Your task to perform on an android device: search for starred emails in the gmail app Image 0: 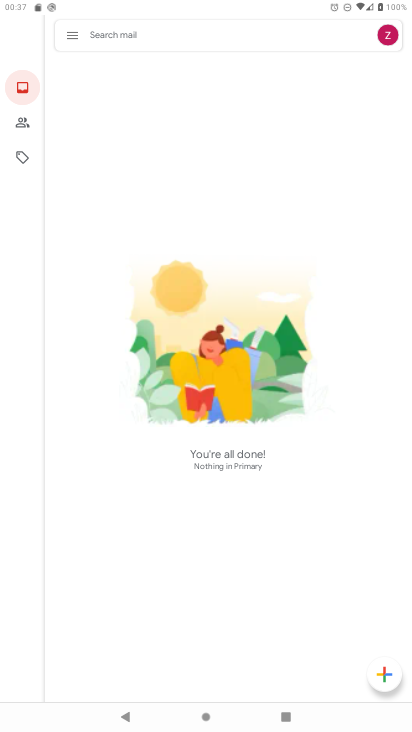
Step 0: drag from (160, 555) to (193, 222)
Your task to perform on an android device: search for starred emails in the gmail app Image 1: 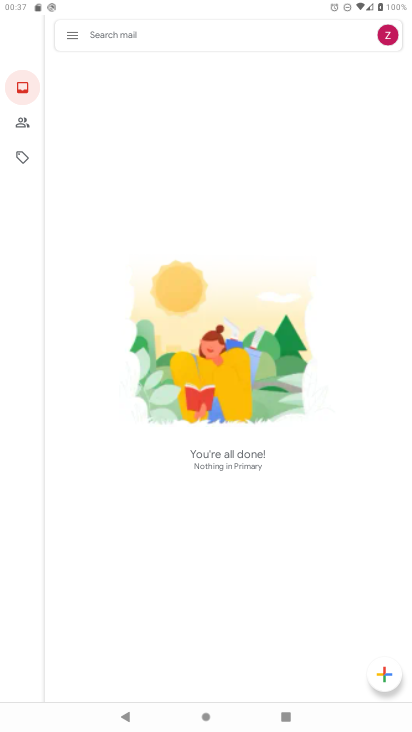
Step 1: click (218, 432)
Your task to perform on an android device: search for starred emails in the gmail app Image 2: 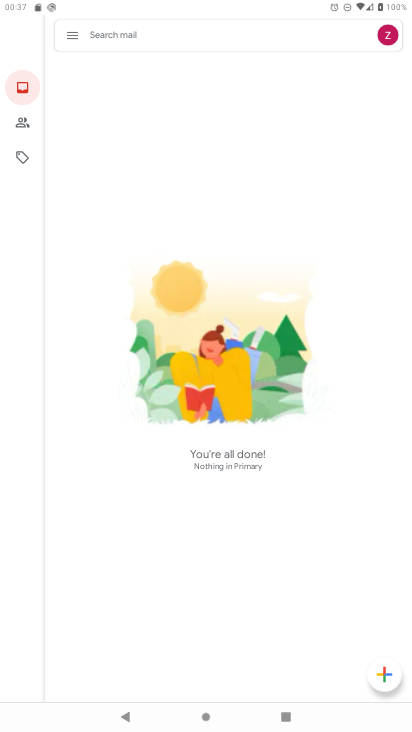
Step 2: click (84, 31)
Your task to perform on an android device: search for starred emails in the gmail app Image 3: 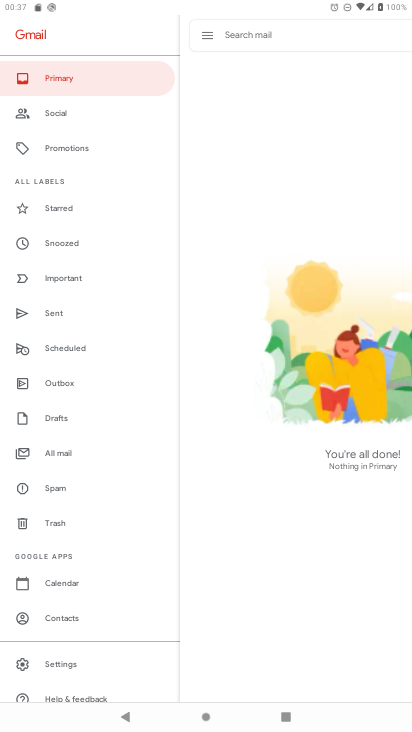
Step 3: click (64, 213)
Your task to perform on an android device: search for starred emails in the gmail app Image 4: 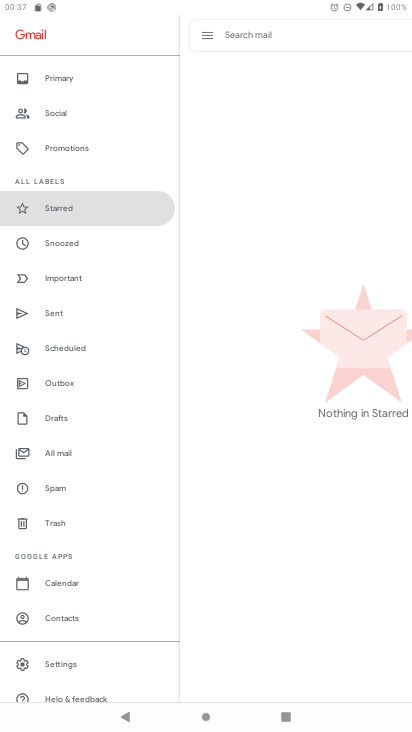
Step 4: click (24, 208)
Your task to perform on an android device: search for starred emails in the gmail app Image 5: 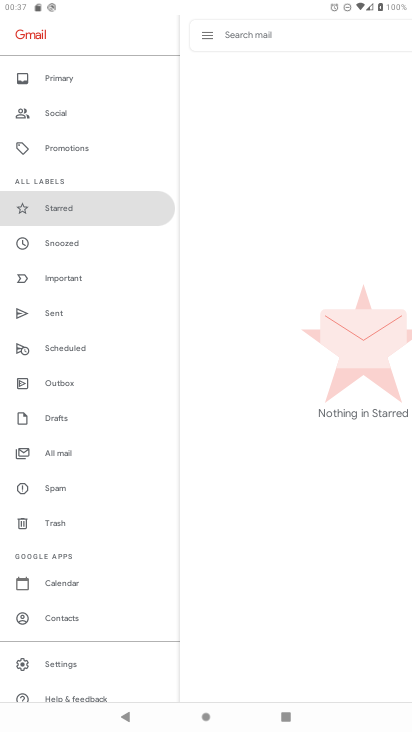
Step 5: task complete